Your task to perform on an android device: uninstall "TextNow: Call + Text Unlimited" Image 0: 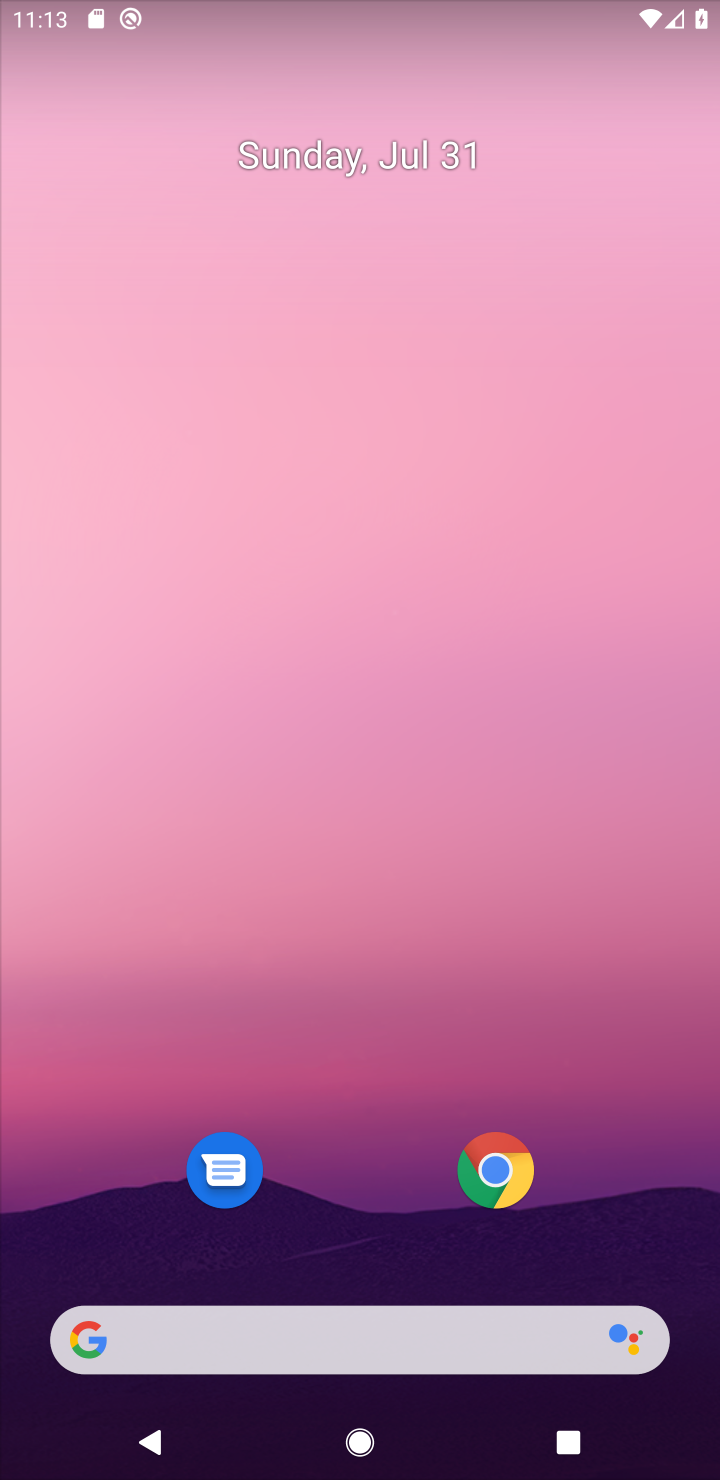
Step 0: press home button
Your task to perform on an android device: uninstall "TextNow: Call + Text Unlimited" Image 1: 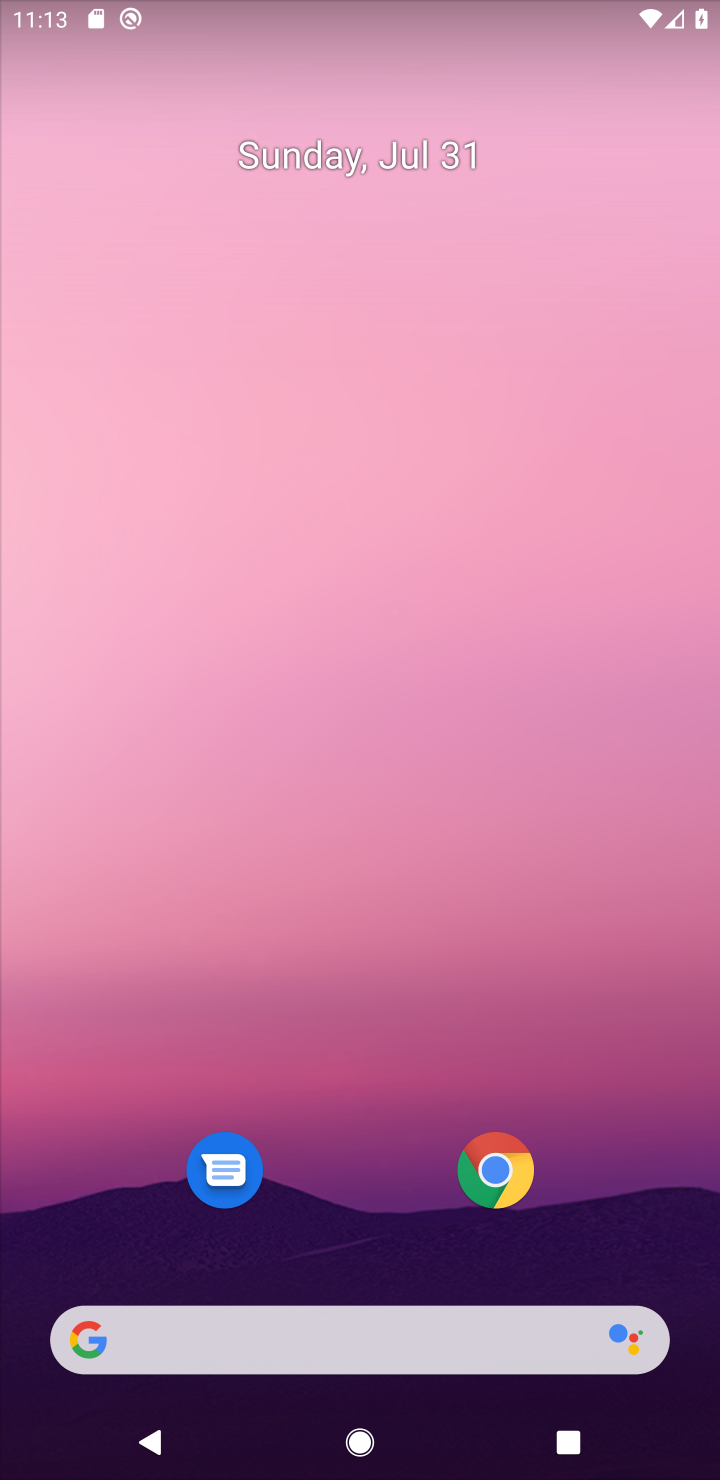
Step 1: drag from (627, 1176) to (325, 55)
Your task to perform on an android device: uninstall "TextNow: Call + Text Unlimited" Image 2: 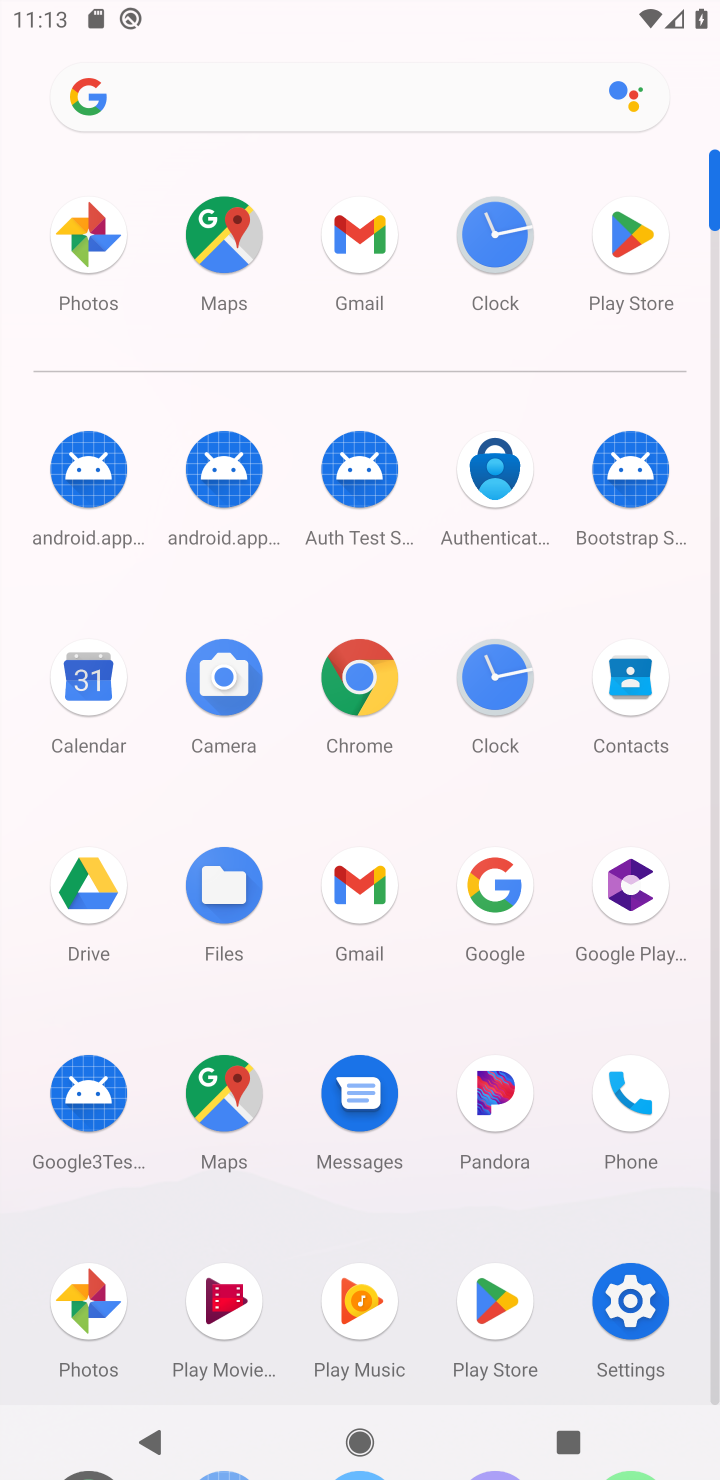
Step 2: click (635, 269)
Your task to perform on an android device: uninstall "TextNow: Call + Text Unlimited" Image 3: 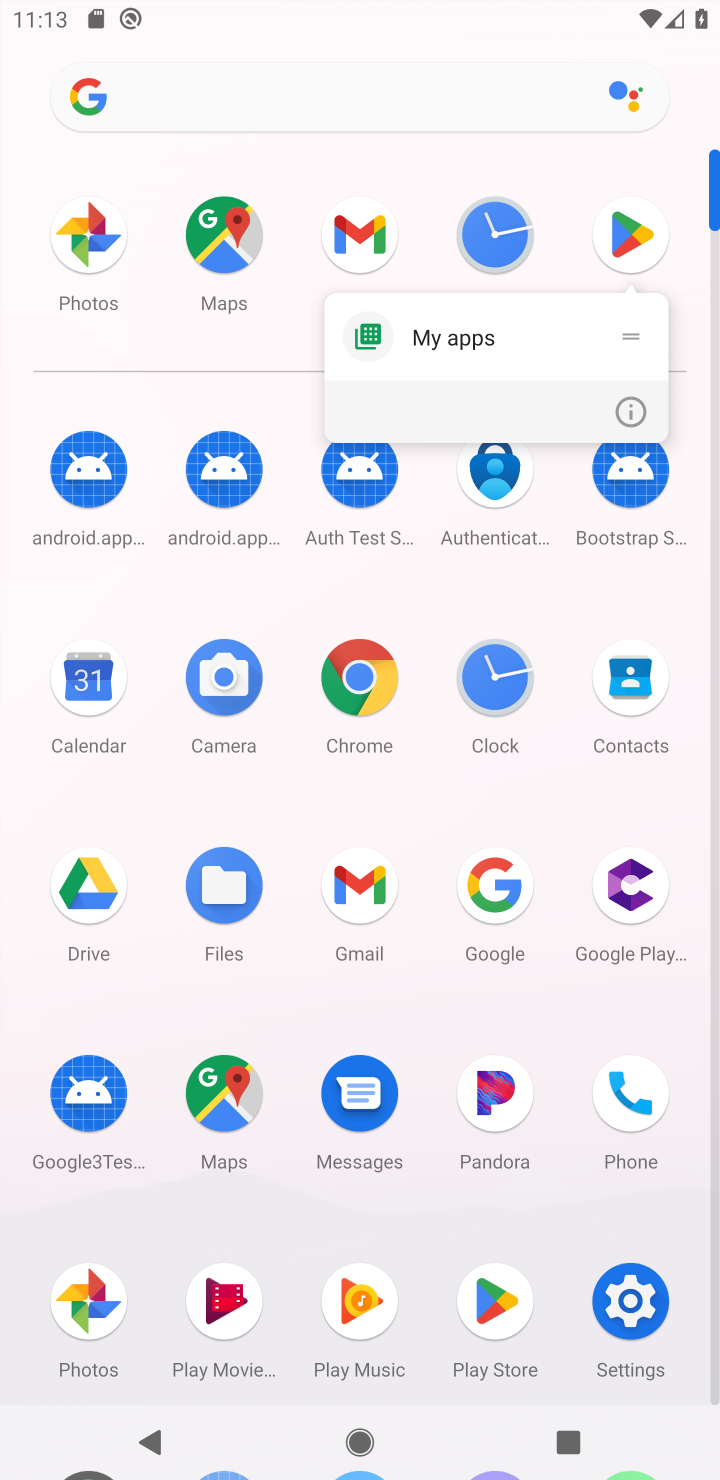
Step 3: click (633, 267)
Your task to perform on an android device: uninstall "TextNow: Call + Text Unlimited" Image 4: 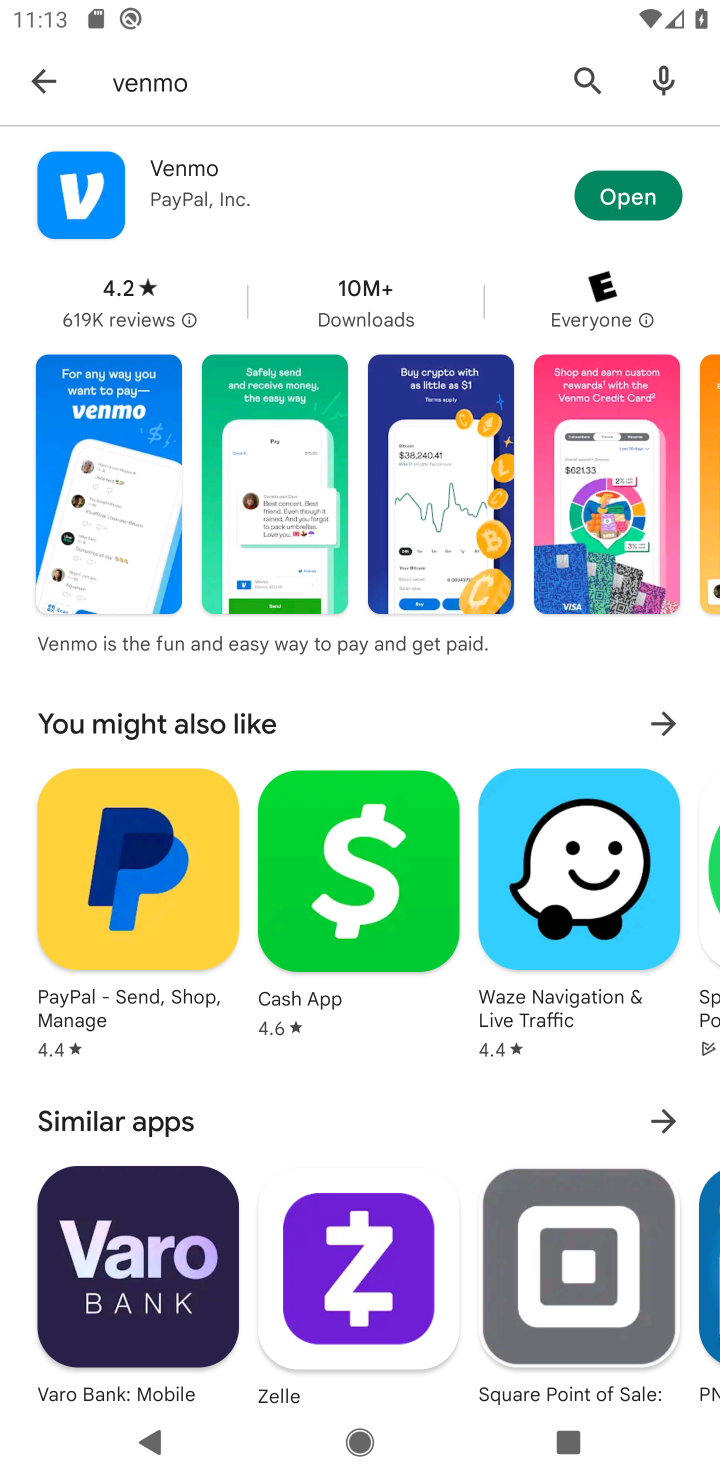
Step 4: press back button
Your task to perform on an android device: uninstall "TextNow: Call + Text Unlimited" Image 5: 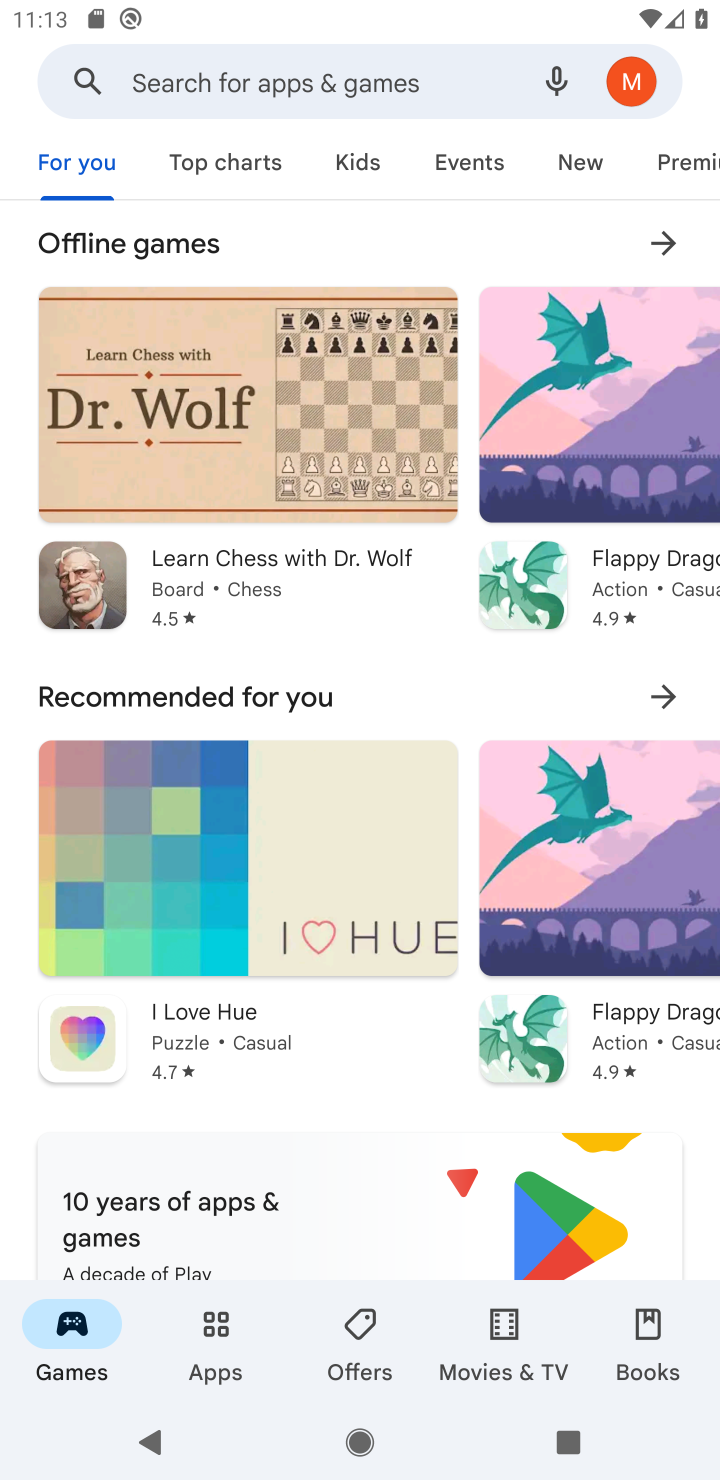
Step 5: click (246, 89)
Your task to perform on an android device: uninstall "TextNow: Call + Text Unlimited" Image 6: 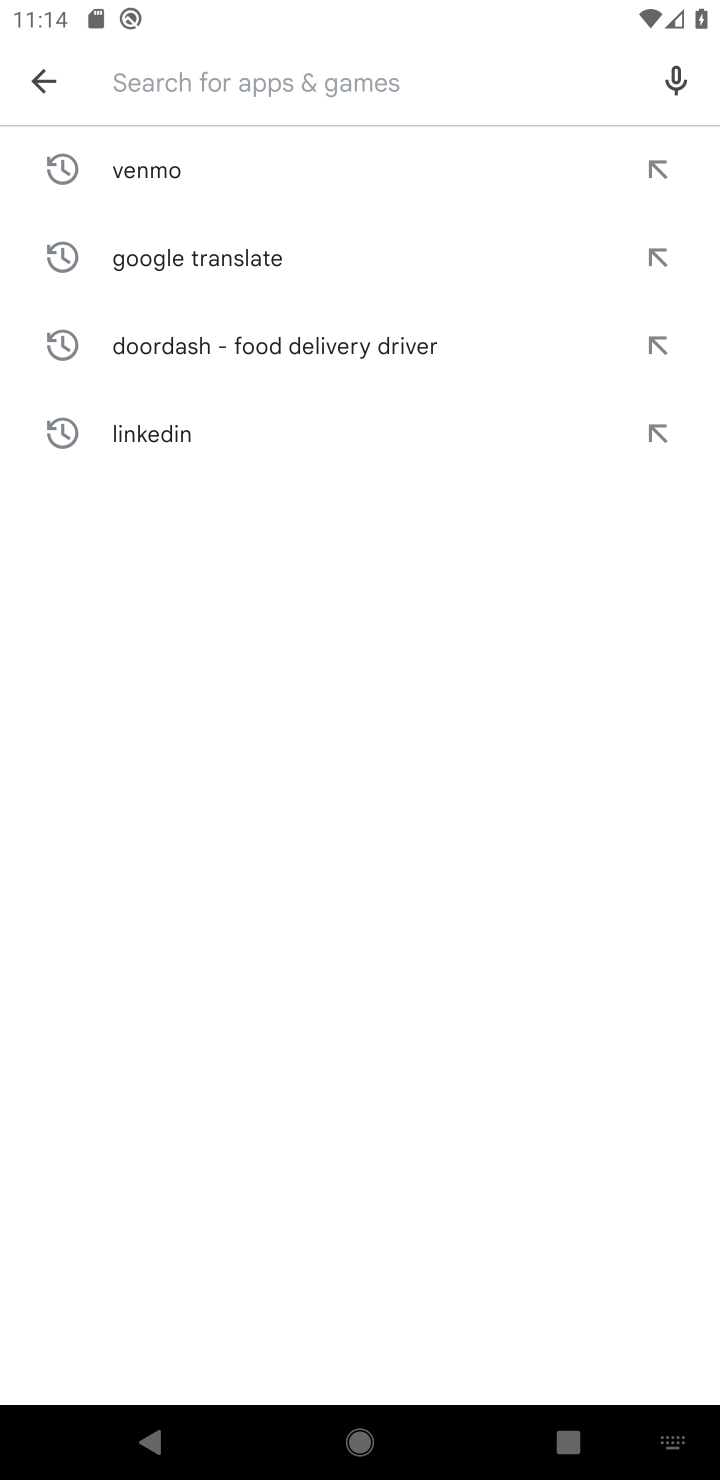
Step 6: type "TextNow: Call + Text Unlimited"
Your task to perform on an android device: uninstall "TextNow: Call + Text Unlimited" Image 7: 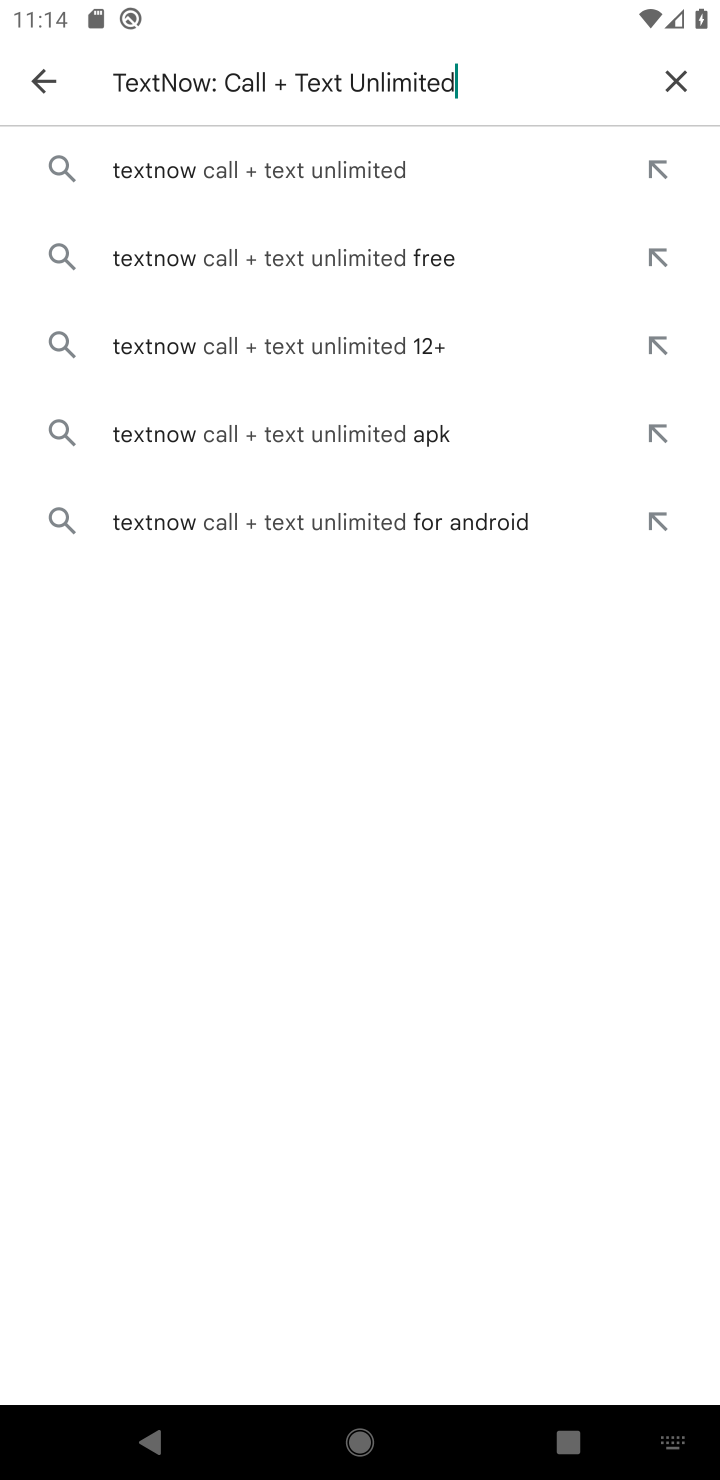
Step 7: click (299, 175)
Your task to perform on an android device: uninstall "TextNow: Call + Text Unlimited" Image 8: 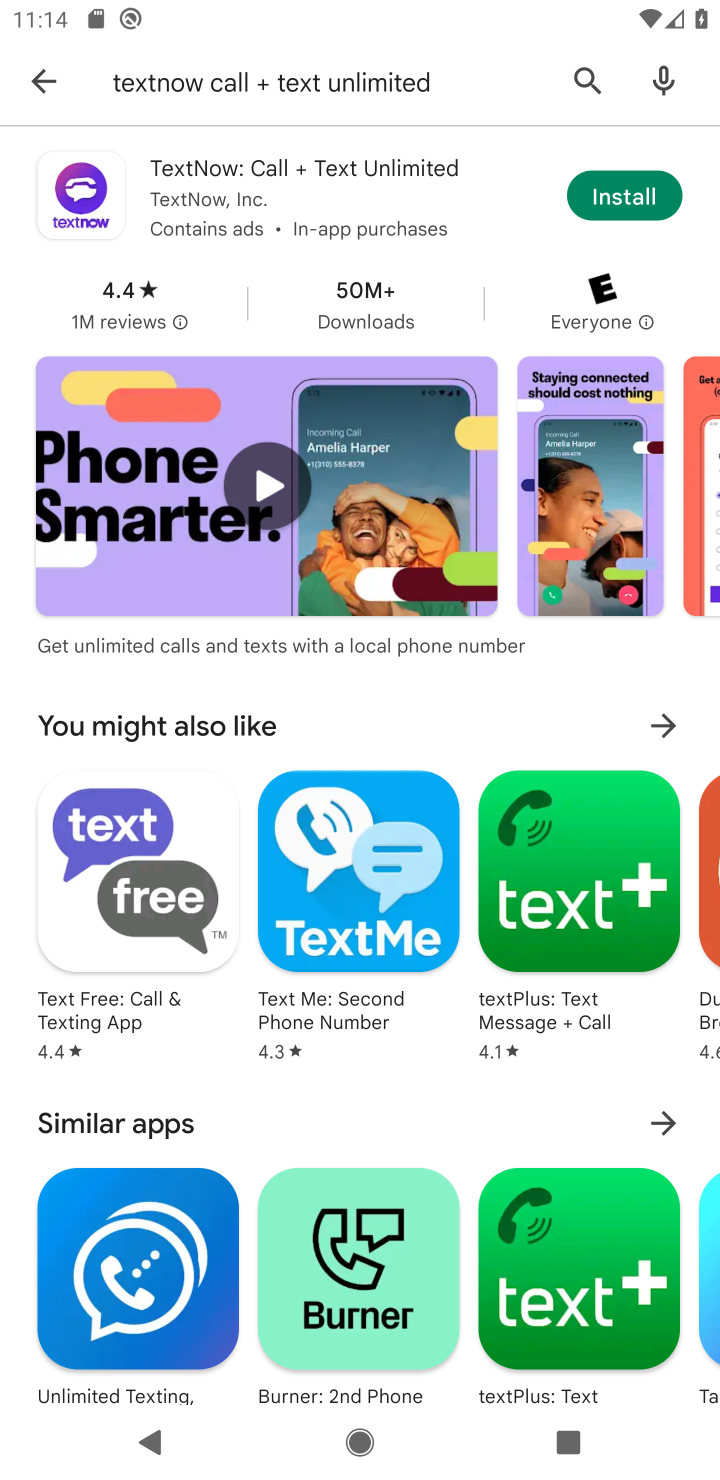
Step 8: task complete